Your task to perform on an android device: Go to internet settings Image 0: 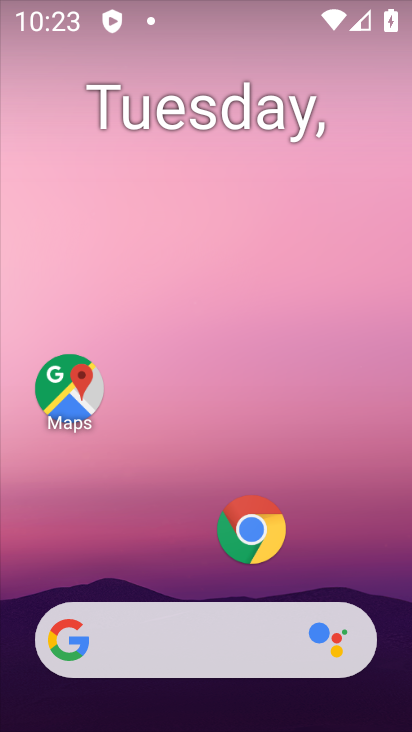
Step 0: drag from (148, 432) to (147, 203)
Your task to perform on an android device: Go to internet settings Image 1: 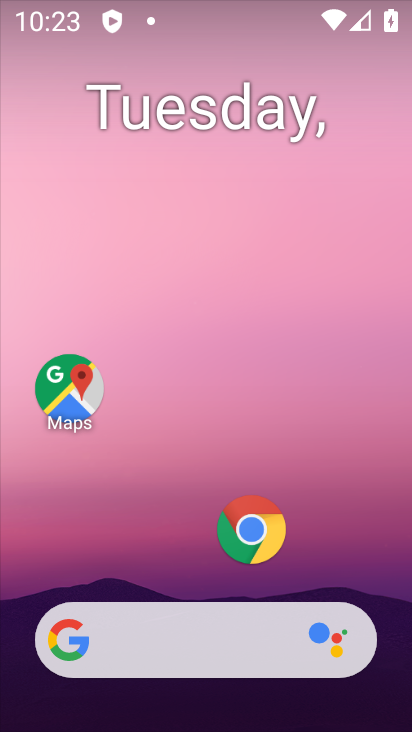
Step 1: drag from (187, 589) to (261, 168)
Your task to perform on an android device: Go to internet settings Image 2: 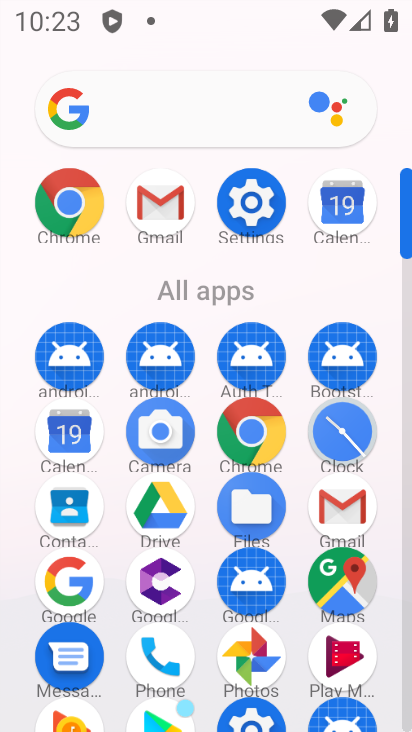
Step 2: click (240, 209)
Your task to perform on an android device: Go to internet settings Image 3: 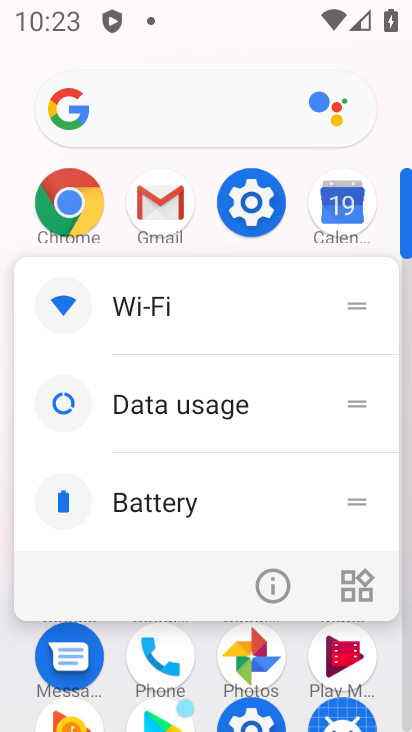
Step 3: click (259, 585)
Your task to perform on an android device: Go to internet settings Image 4: 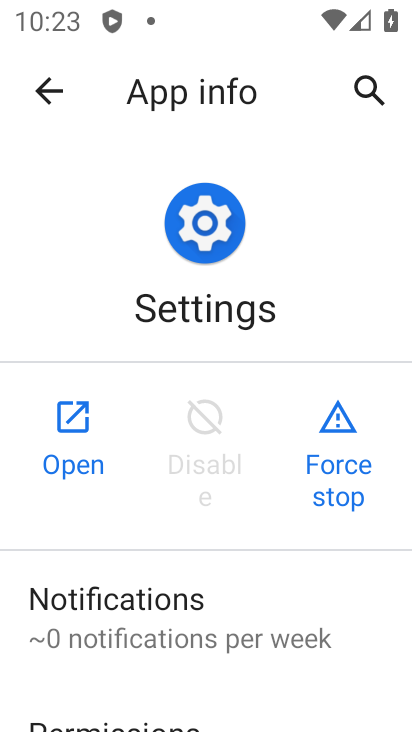
Step 4: drag from (93, 645) to (96, 529)
Your task to perform on an android device: Go to internet settings Image 5: 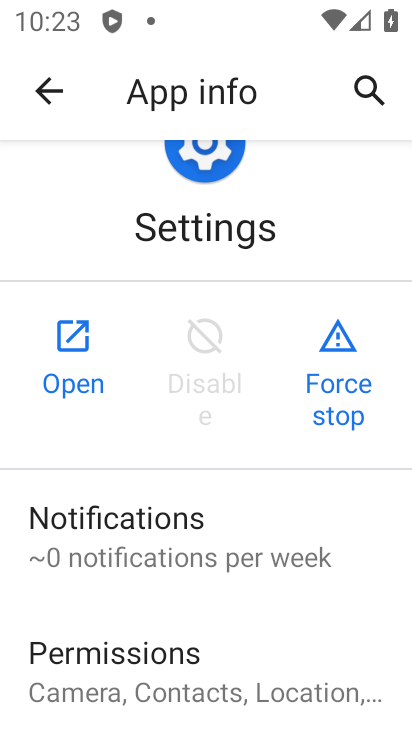
Step 5: click (61, 362)
Your task to perform on an android device: Go to internet settings Image 6: 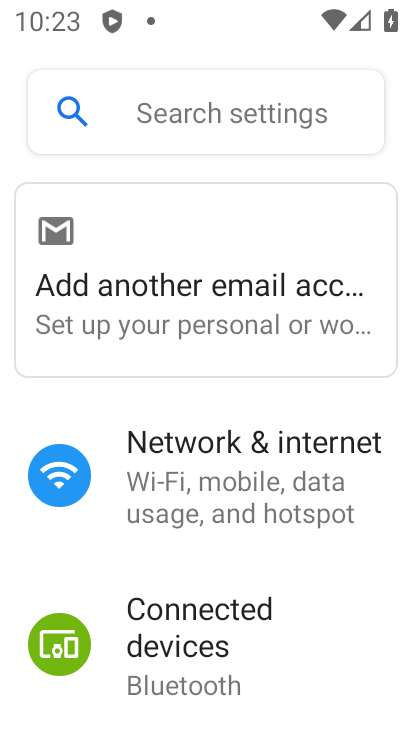
Step 6: click (268, 504)
Your task to perform on an android device: Go to internet settings Image 7: 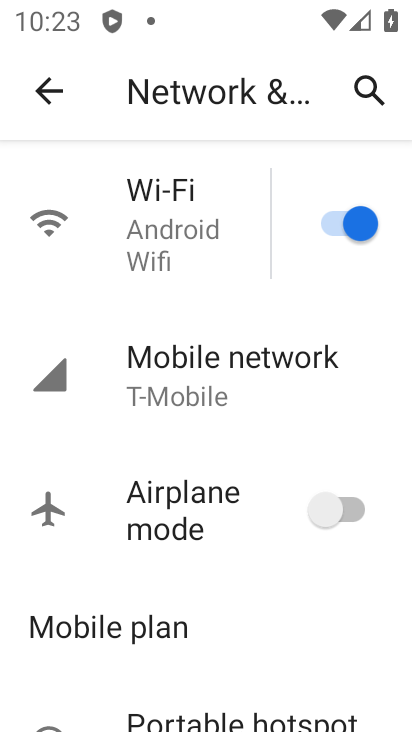
Step 7: click (168, 368)
Your task to perform on an android device: Go to internet settings Image 8: 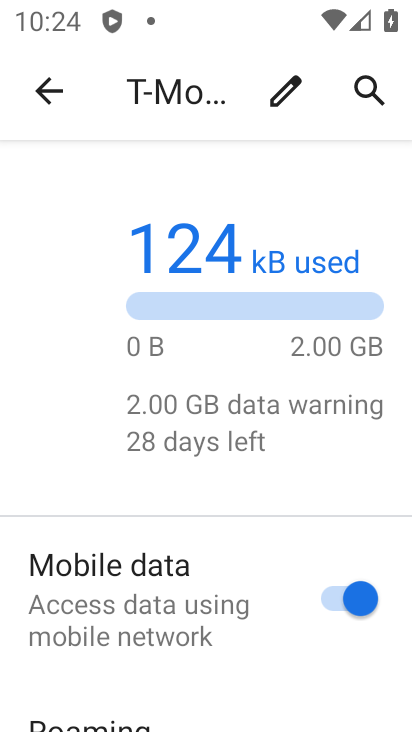
Step 8: task complete